Your task to perform on an android device: check out phone information Image 0: 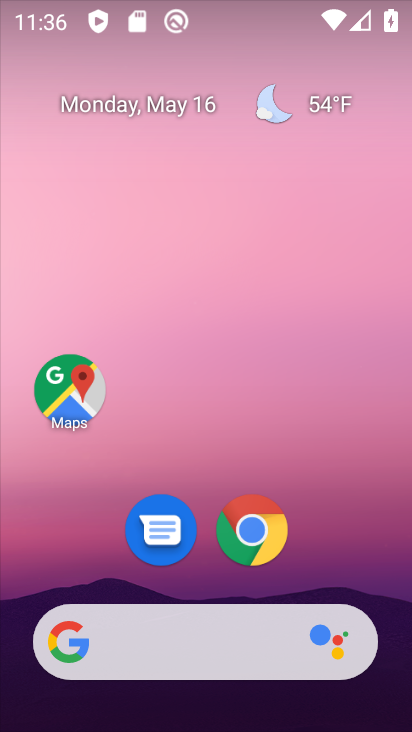
Step 0: drag from (320, 556) to (331, 156)
Your task to perform on an android device: check out phone information Image 1: 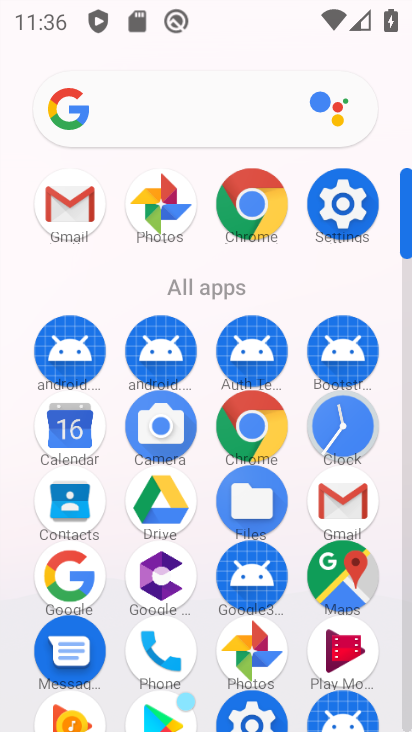
Step 1: click (177, 642)
Your task to perform on an android device: check out phone information Image 2: 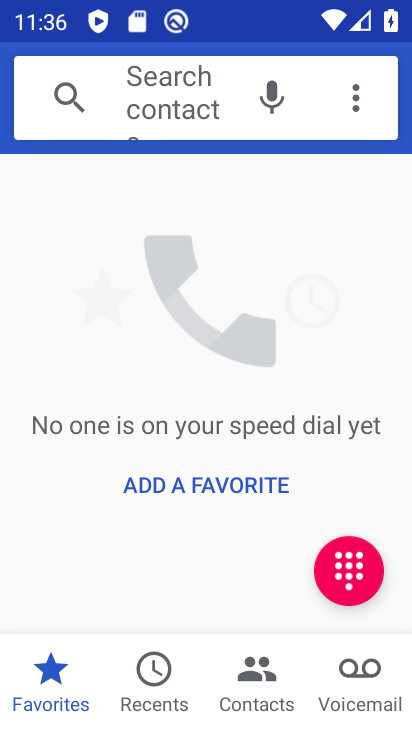
Step 2: click (144, 694)
Your task to perform on an android device: check out phone information Image 3: 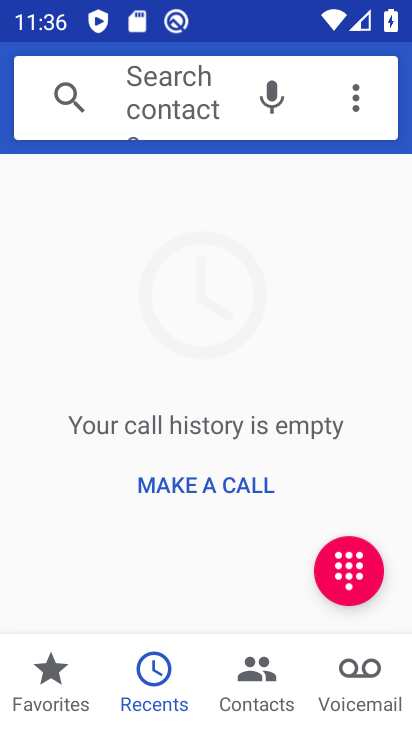
Step 3: task complete